Your task to perform on an android device: turn on translation in the chrome app Image 0: 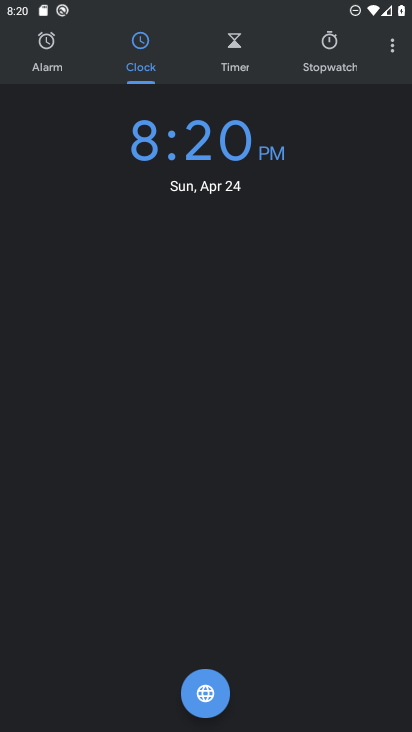
Step 0: press home button
Your task to perform on an android device: turn on translation in the chrome app Image 1: 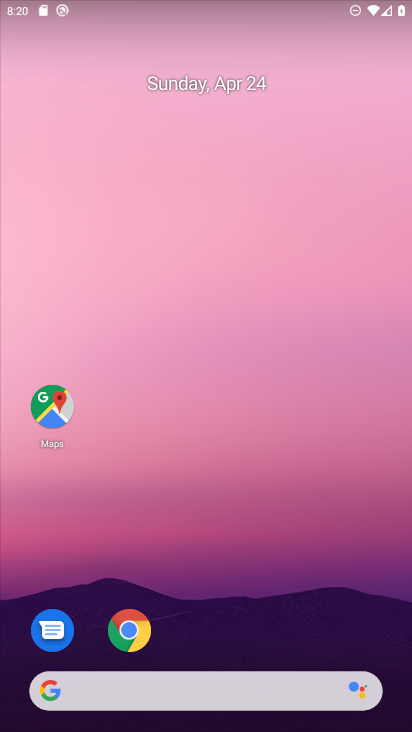
Step 1: click (124, 639)
Your task to perform on an android device: turn on translation in the chrome app Image 2: 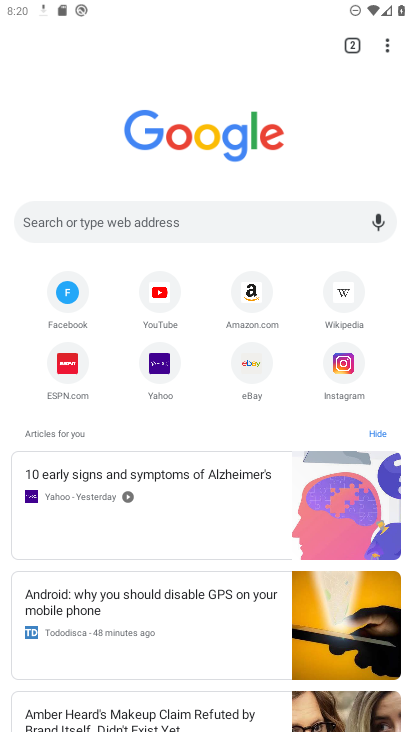
Step 2: drag from (379, 49) to (209, 384)
Your task to perform on an android device: turn on translation in the chrome app Image 3: 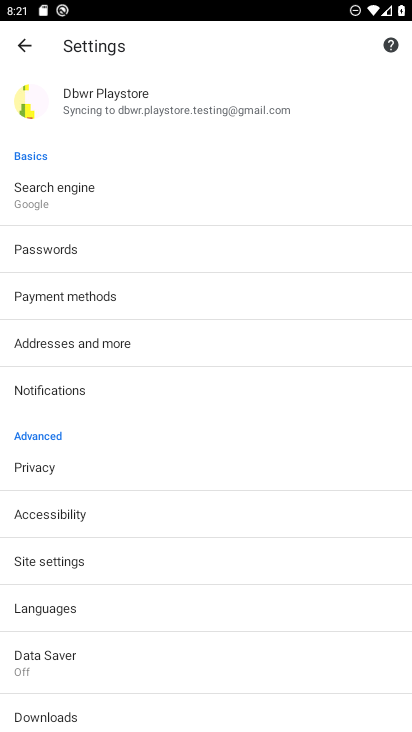
Step 3: click (81, 607)
Your task to perform on an android device: turn on translation in the chrome app Image 4: 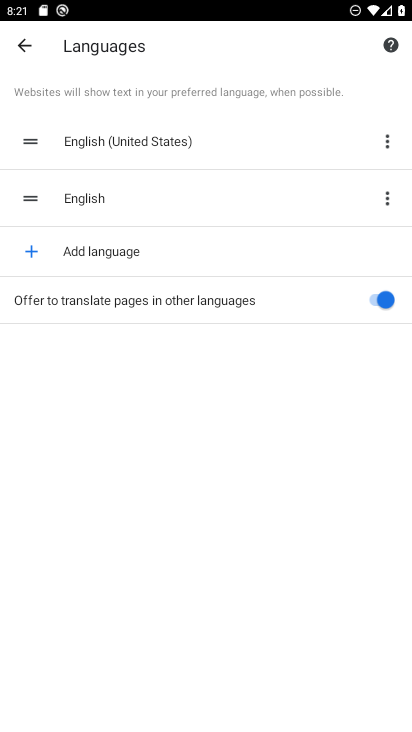
Step 4: task complete